Your task to perform on an android device: toggle pop-ups in chrome Image 0: 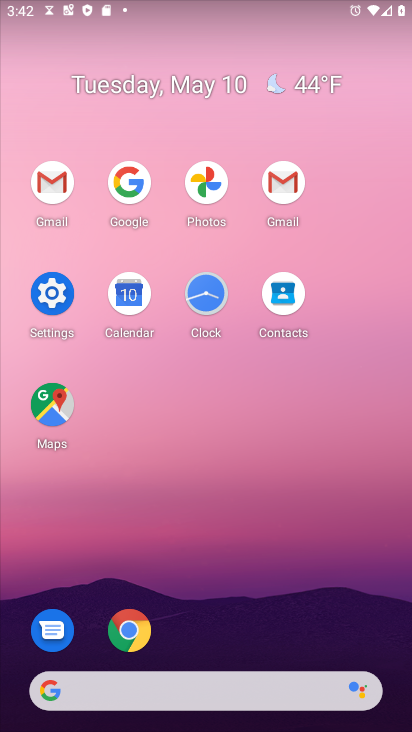
Step 0: click (135, 624)
Your task to perform on an android device: toggle pop-ups in chrome Image 1: 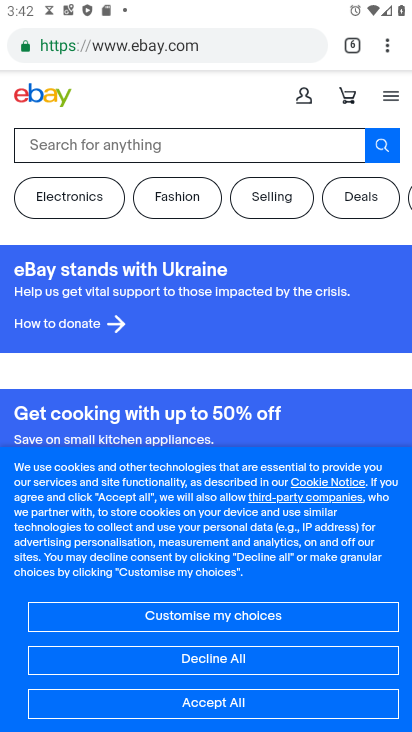
Step 1: click (384, 50)
Your task to perform on an android device: toggle pop-ups in chrome Image 2: 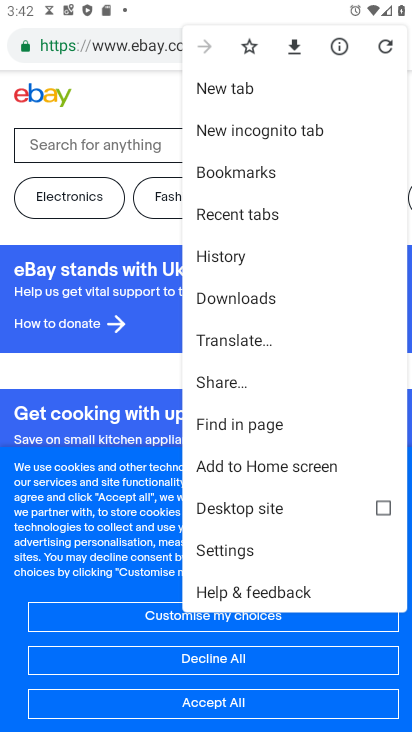
Step 2: click (238, 554)
Your task to perform on an android device: toggle pop-ups in chrome Image 3: 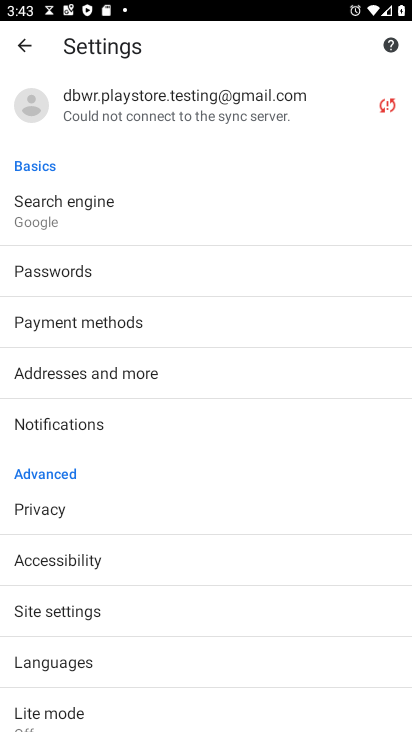
Step 3: click (132, 603)
Your task to perform on an android device: toggle pop-ups in chrome Image 4: 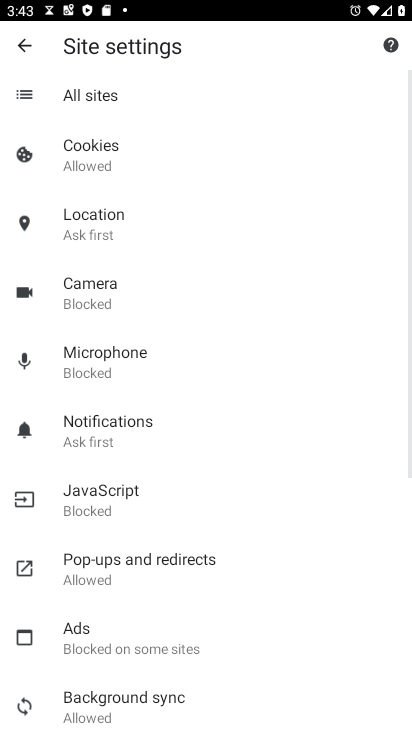
Step 4: click (158, 567)
Your task to perform on an android device: toggle pop-ups in chrome Image 5: 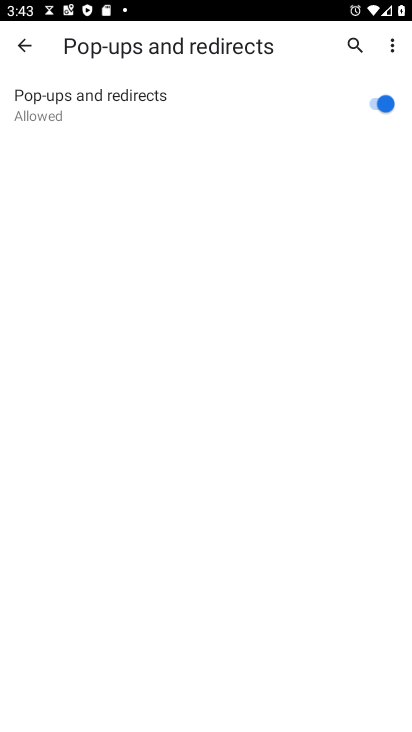
Step 5: click (374, 102)
Your task to perform on an android device: toggle pop-ups in chrome Image 6: 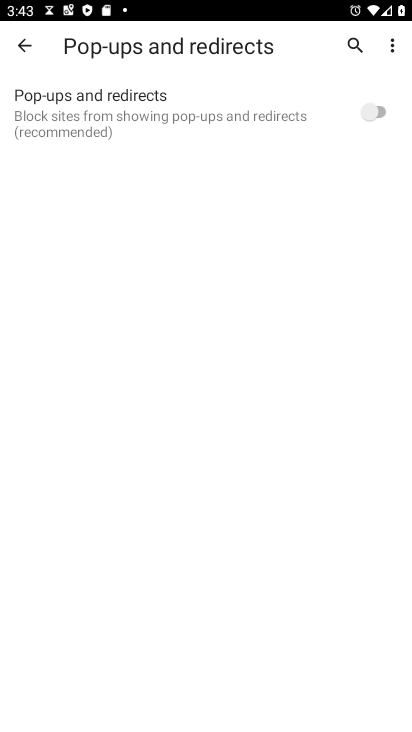
Step 6: task complete